Your task to perform on an android device: stop showing notifications on the lock screen Image 0: 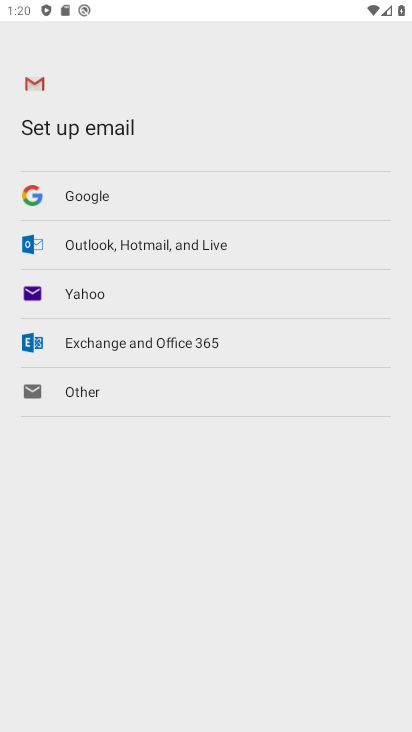
Step 0: press back button
Your task to perform on an android device: stop showing notifications on the lock screen Image 1: 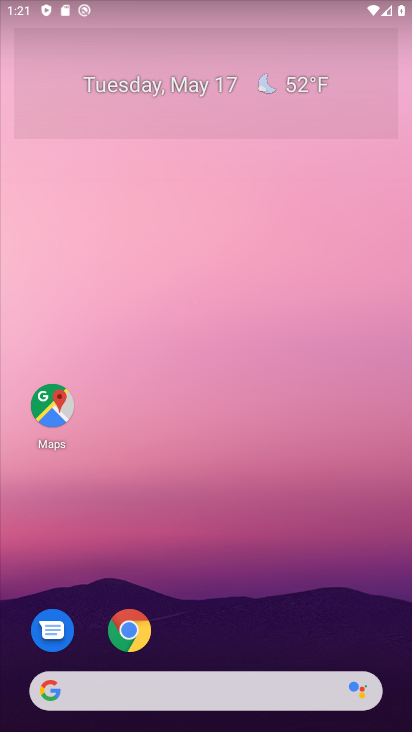
Step 1: drag from (174, 640) to (279, 169)
Your task to perform on an android device: stop showing notifications on the lock screen Image 2: 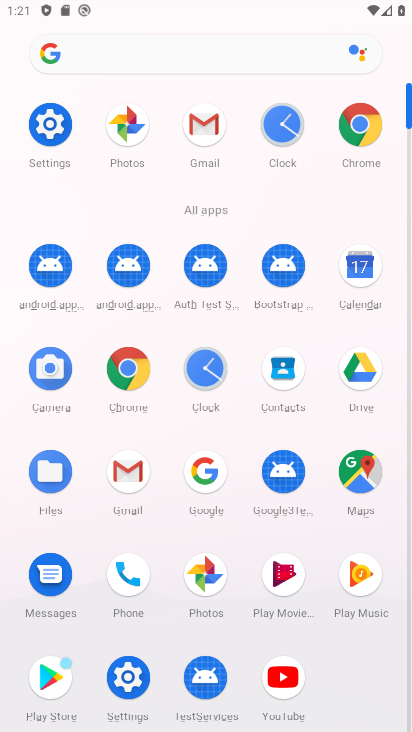
Step 2: click (43, 132)
Your task to perform on an android device: stop showing notifications on the lock screen Image 3: 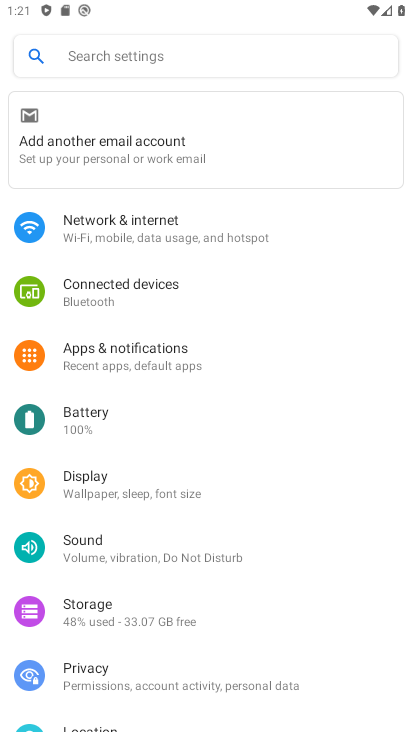
Step 3: click (144, 353)
Your task to perform on an android device: stop showing notifications on the lock screen Image 4: 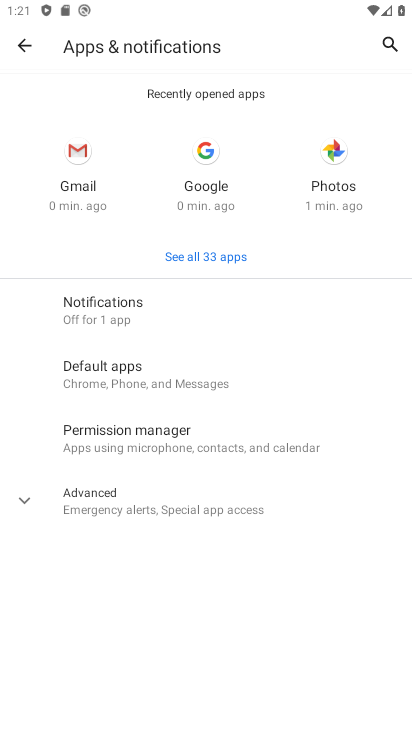
Step 4: click (136, 308)
Your task to perform on an android device: stop showing notifications on the lock screen Image 5: 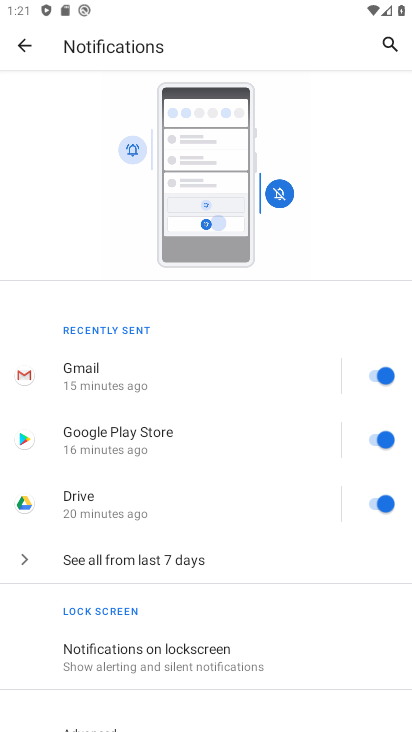
Step 5: click (216, 643)
Your task to perform on an android device: stop showing notifications on the lock screen Image 6: 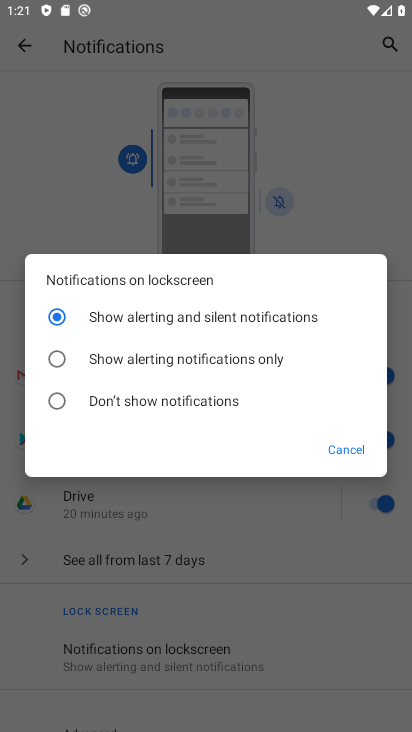
Step 6: click (49, 398)
Your task to perform on an android device: stop showing notifications on the lock screen Image 7: 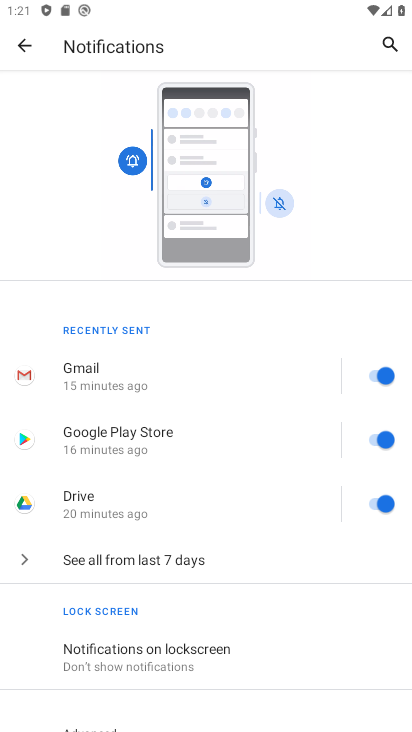
Step 7: task complete